Your task to perform on an android device: open a bookmark in the chrome app Image 0: 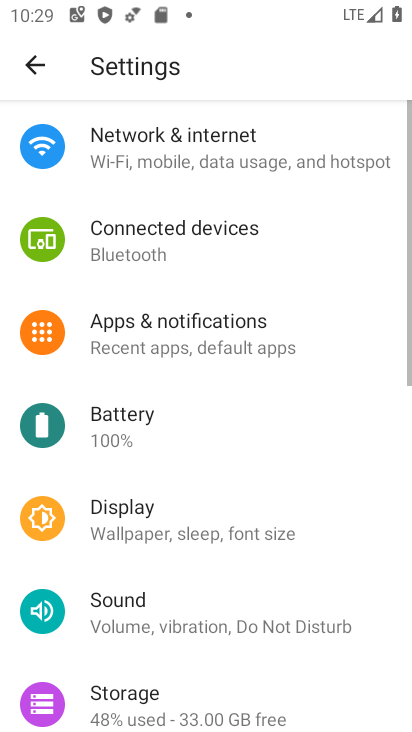
Step 0: press home button
Your task to perform on an android device: open a bookmark in the chrome app Image 1: 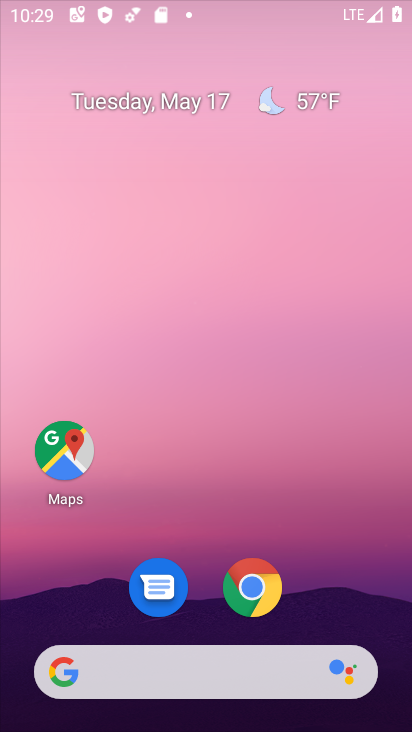
Step 1: drag from (381, 654) to (294, 100)
Your task to perform on an android device: open a bookmark in the chrome app Image 2: 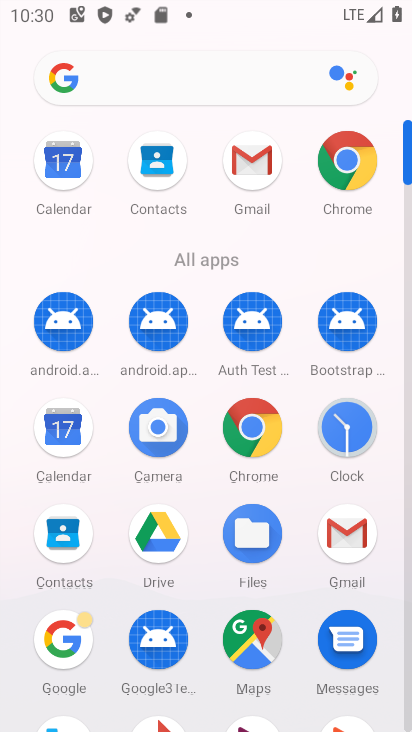
Step 2: click (264, 444)
Your task to perform on an android device: open a bookmark in the chrome app Image 3: 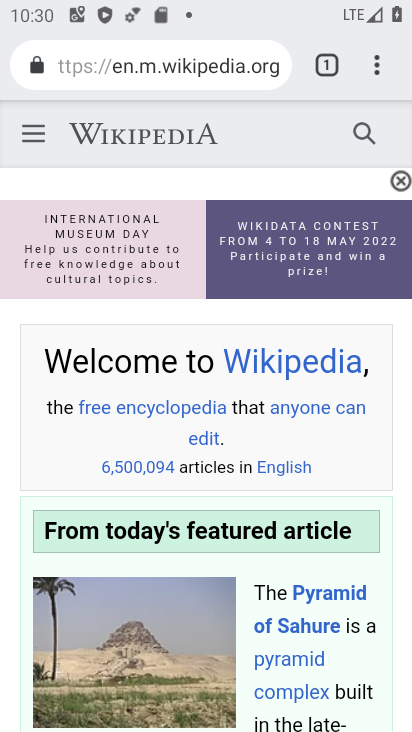
Step 3: press back button
Your task to perform on an android device: open a bookmark in the chrome app Image 4: 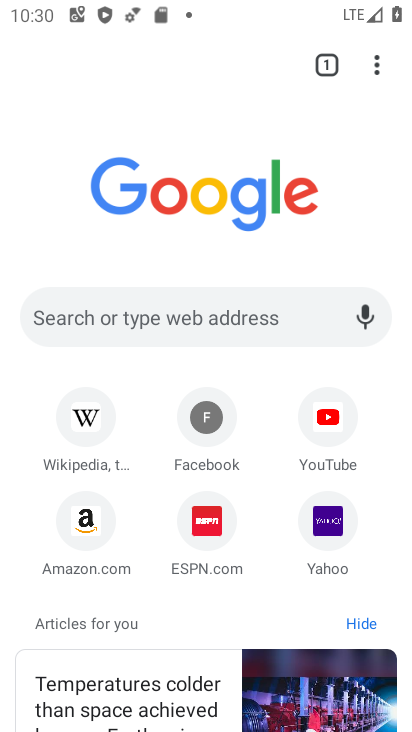
Step 4: click (373, 58)
Your task to perform on an android device: open a bookmark in the chrome app Image 5: 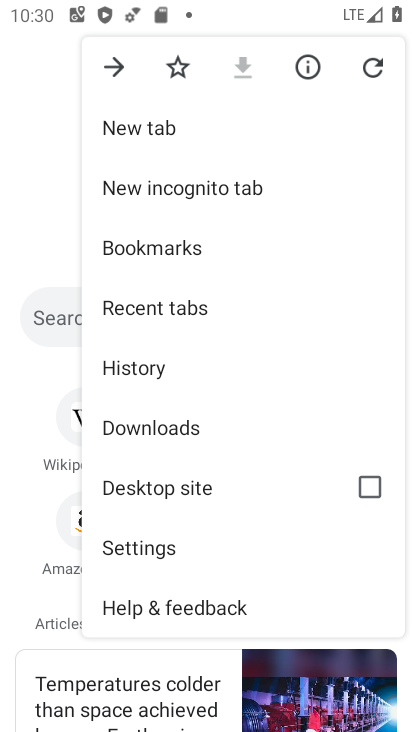
Step 5: click (189, 238)
Your task to perform on an android device: open a bookmark in the chrome app Image 6: 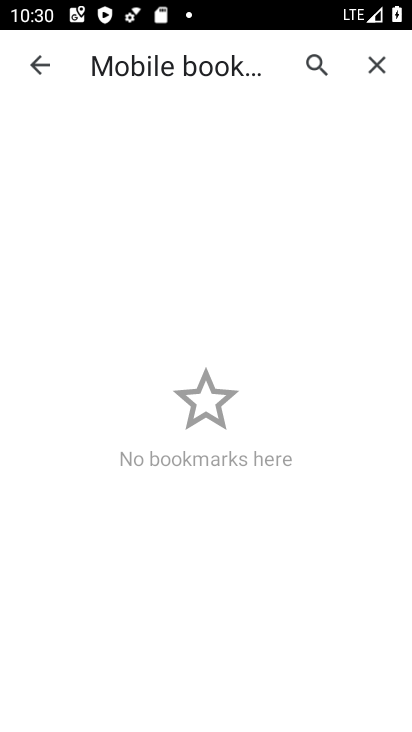
Step 6: task complete